Your task to perform on an android device: turn off notifications in google photos Image 0: 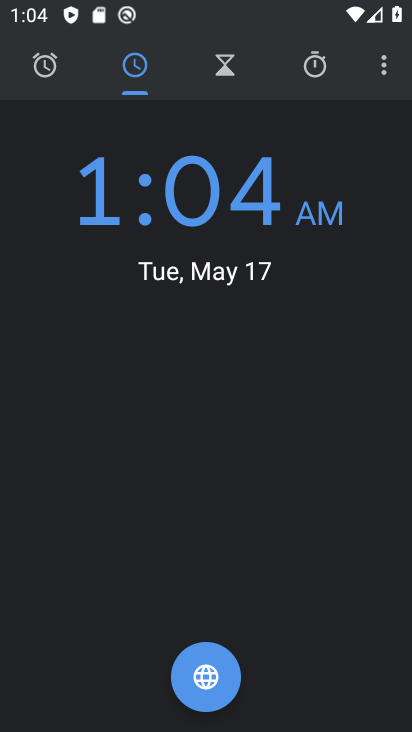
Step 0: press home button
Your task to perform on an android device: turn off notifications in google photos Image 1: 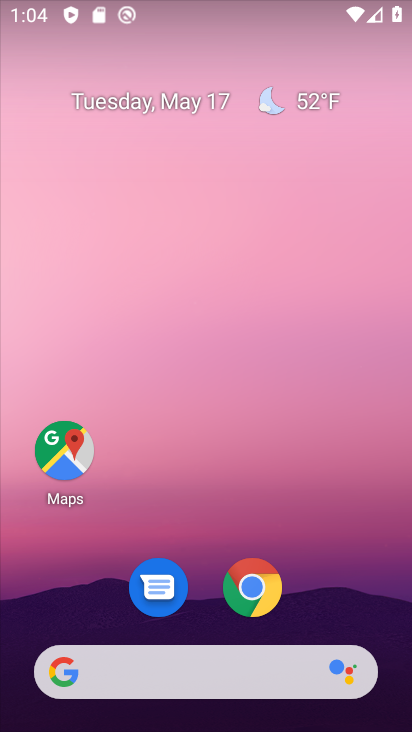
Step 1: drag from (350, 572) to (320, 132)
Your task to perform on an android device: turn off notifications in google photos Image 2: 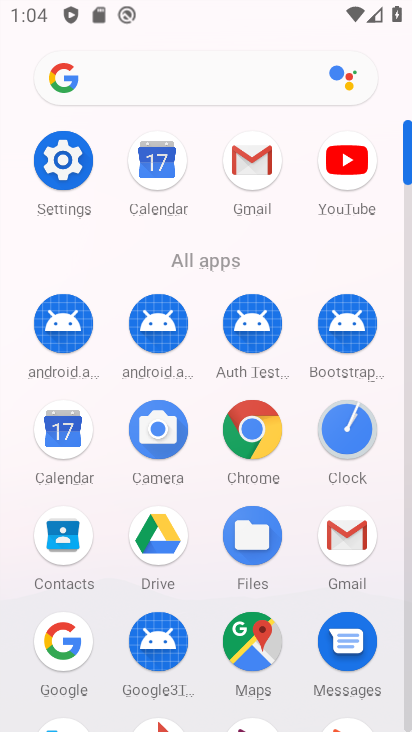
Step 2: click (403, 716)
Your task to perform on an android device: turn off notifications in google photos Image 3: 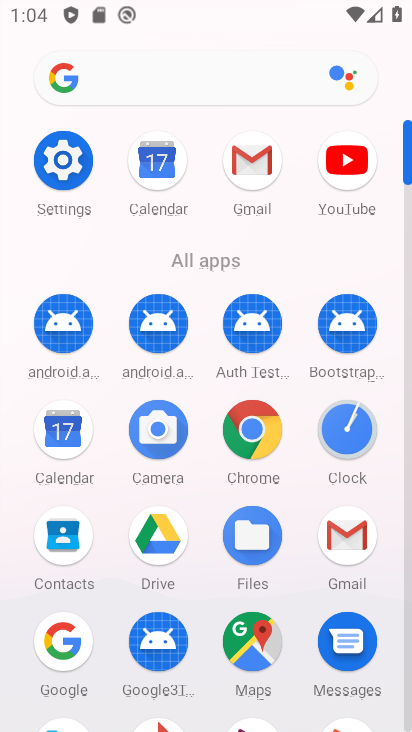
Step 3: click (409, 716)
Your task to perform on an android device: turn off notifications in google photos Image 4: 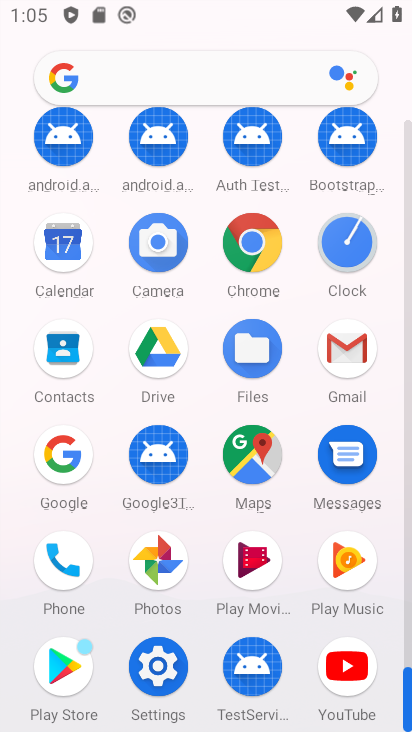
Step 4: click (138, 567)
Your task to perform on an android device: turn off notifications in google photos Image 5: 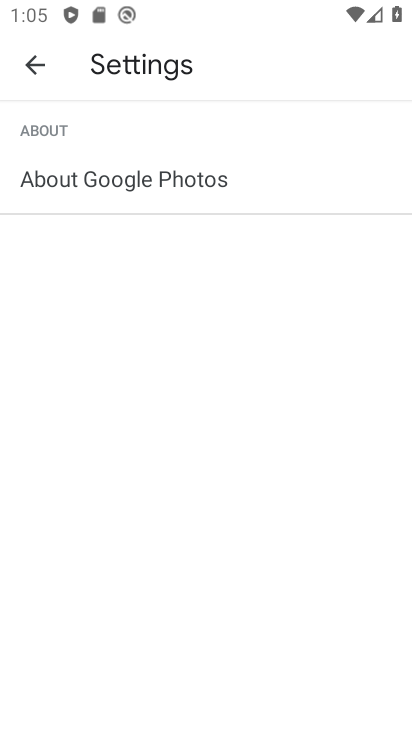
Step 5: click (38, 61)
Your task to perform on an android device: turn off notifications in google photos Image 6: 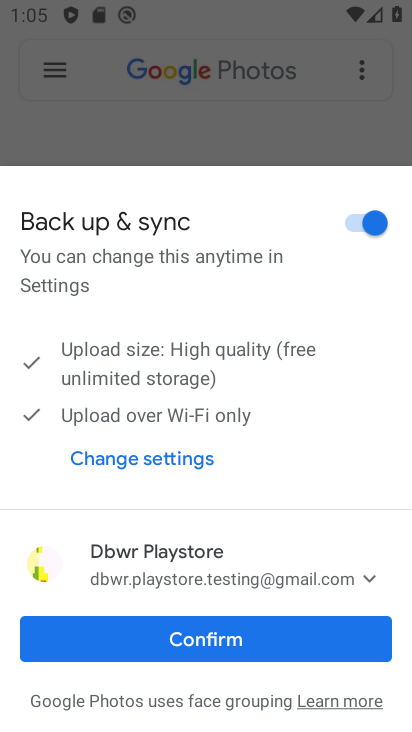
Step 6: click (56, 77)
Your task to perform on an android device: turn off notifications in google photos Image 7: 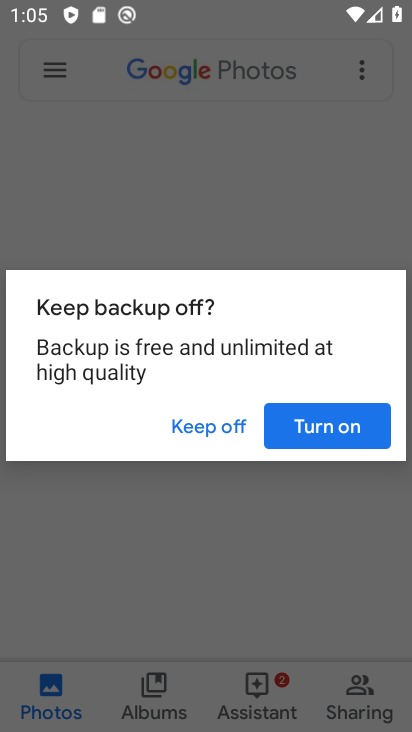
Step 7: click (283, 426)
Your task to perform on an android device: turn off notifications in google photos Image 8: 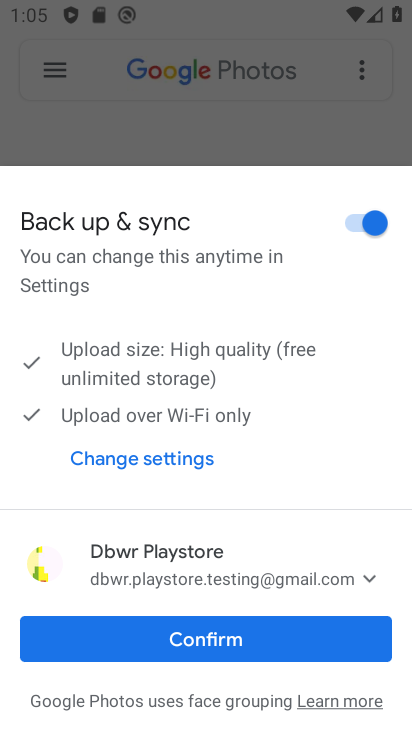
Step 8: click (182, 635)
Your task to perform on an android device: turn off notifications in google photos Image 9: 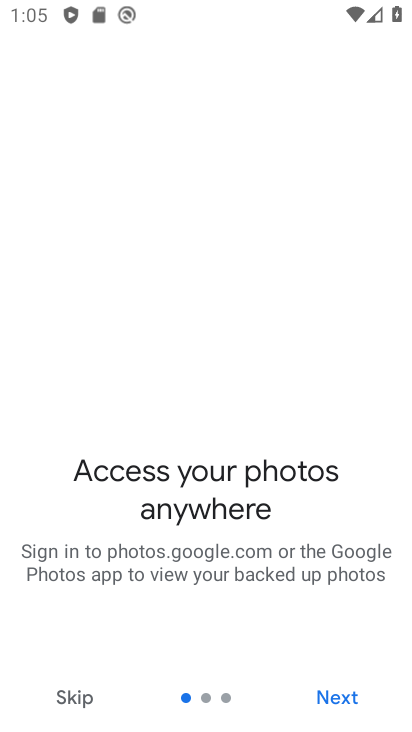
Step 9: click (347, 698)
Your task to perform on an android device: turn off notifications in google photos Image 10: 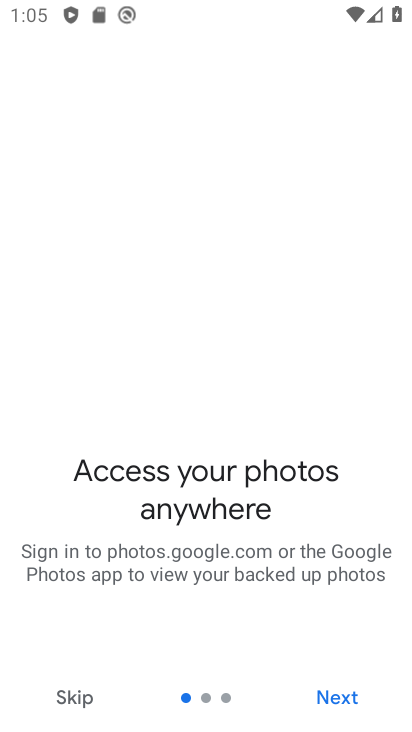
Step 10: click (347, 698)
Your task to perform on an android device: turn off notifications in google photos Image 11: 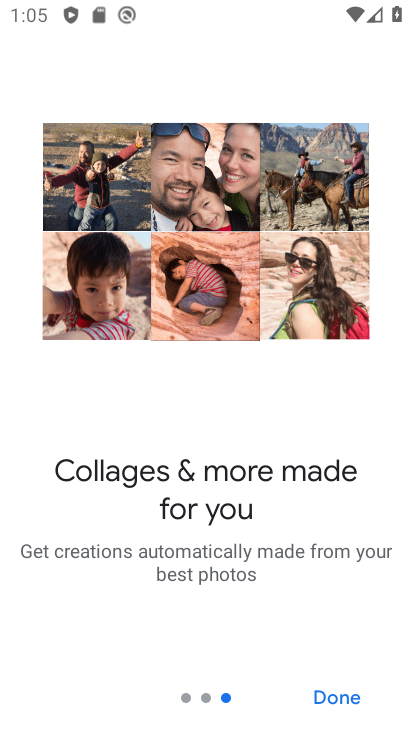
Step 11: click (347, 698)
Your task to perform on an android device: turn off notifications in google photos Image 12: 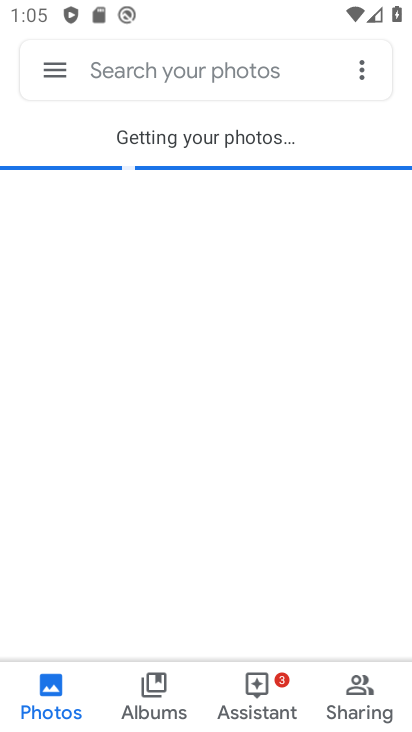
Step 12: click (59, 80)
Your task to perform on an android device: turn off notifications in google photos Image 13: 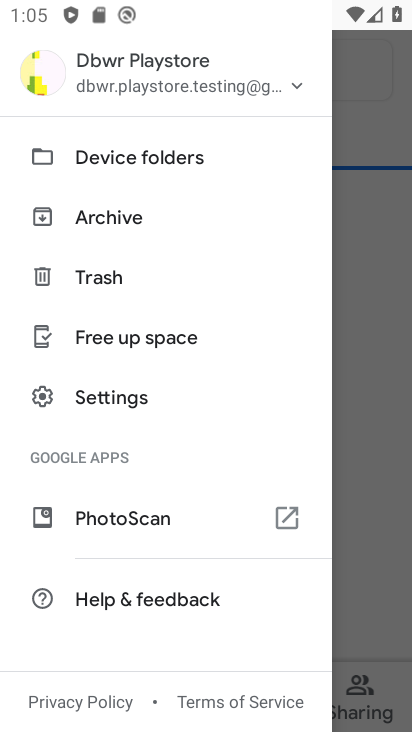
Step 13: click (134, 405)
Your task to perform on an android device: turn off notifications in google photos Image 14: 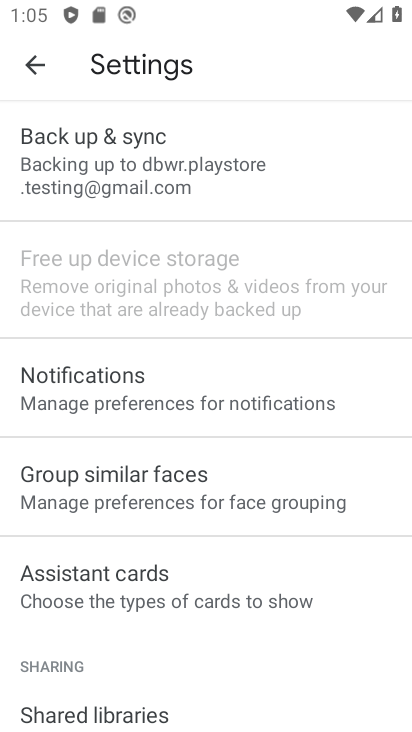
Step 14: click (113, 394)
Your task to perform on an android device: turn off notifications in google photos Image 15: 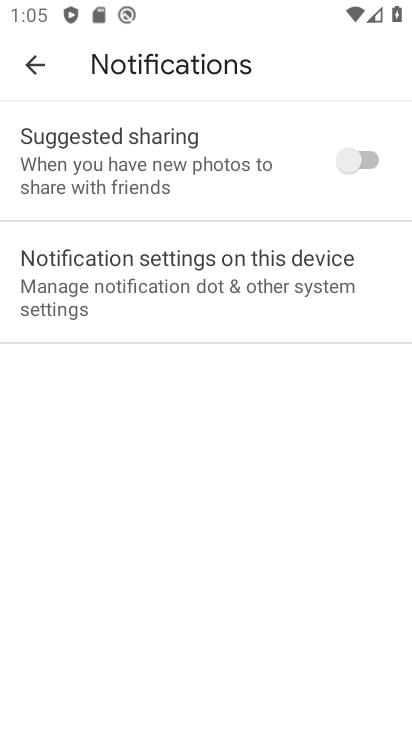
Step 15: task complete